Your task to perform on an android device: Open the phone app and click the voicemail tab. Image 0: 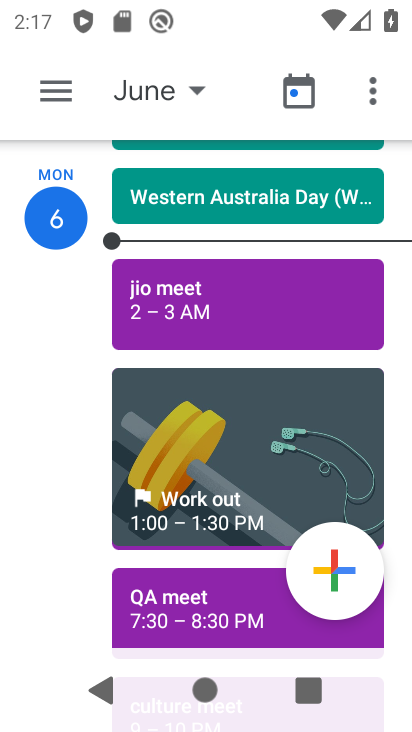
Step 0: press back button
Your task to perform on an android device: Open the phone app and click the voicemail tab. Image 1: 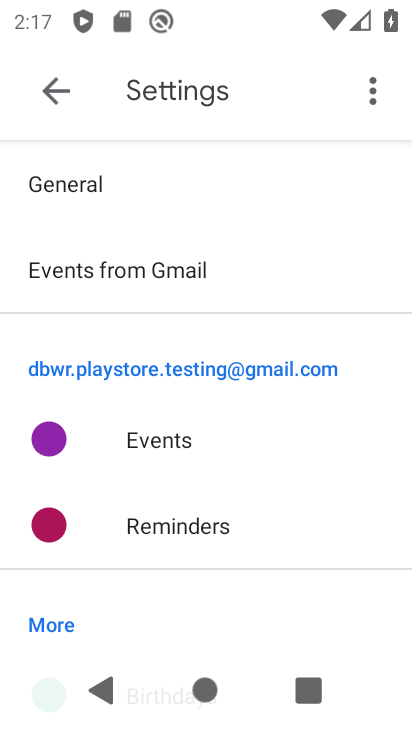
Step 1: press back button
Your task to perform on an android device: Open the phone app and click the voicemail tab. Image 2: 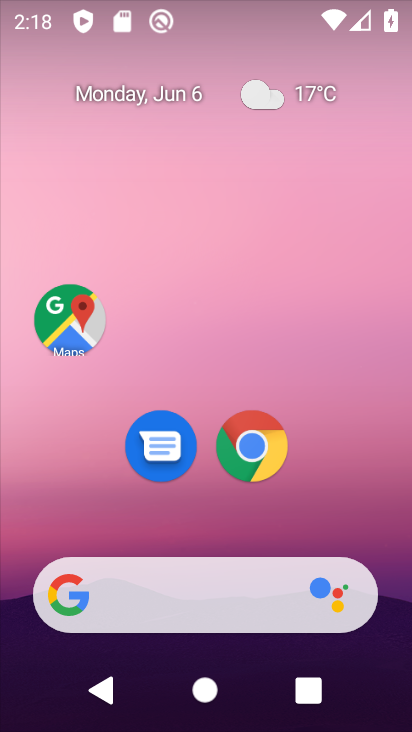
Step 2: drag from (279, 498) to (316, 64)
Your task to perform on an android device: Open the phone app and click the voicemail tab. Image 3: 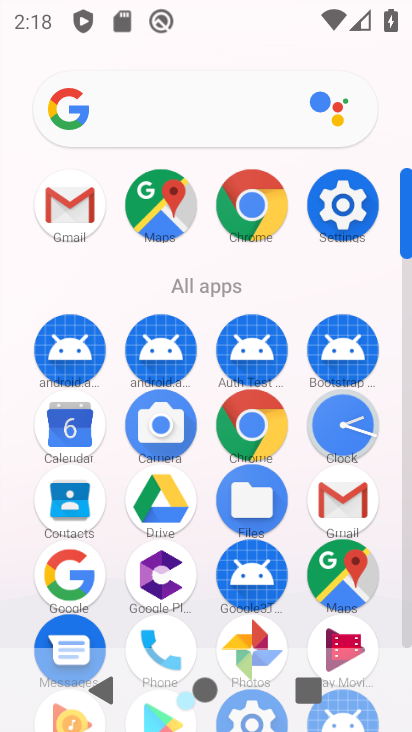
Step 3: click (170, 632)
Your task to perform on an android device: Open the phone app and click the voicemail tab. Image 4: 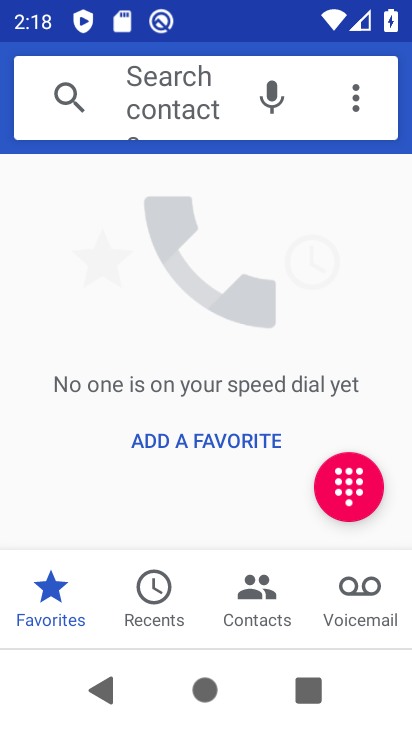
Step 4: click (380, 605)
Your task to perform on an android device: Open the phone app and click the voicemail tab. Image 5: 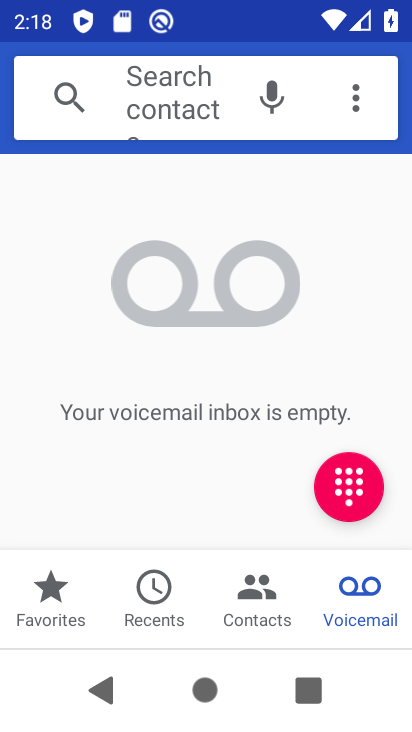
Step 5: task complete